Your task to perform on an android device: turn pop-ups off in chrome Image 0: 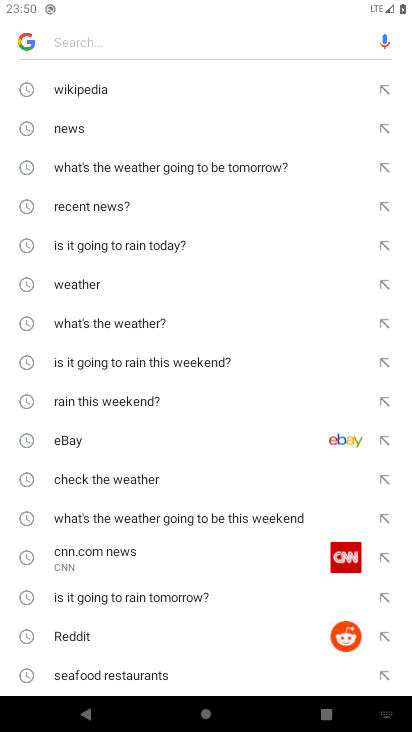
Step 0: press home button
Your task to perform on an android device: turn pop-ups off in chrome Image 1: 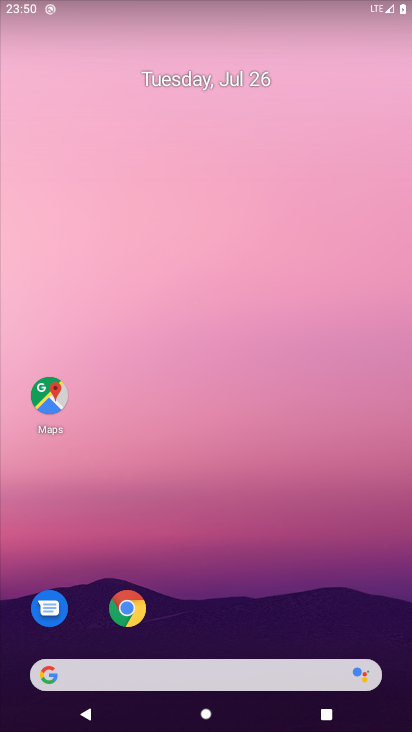
Step 1: click (135, 608)
Your task to perform on an android device: turn pop-ups off in chrome Image 2: 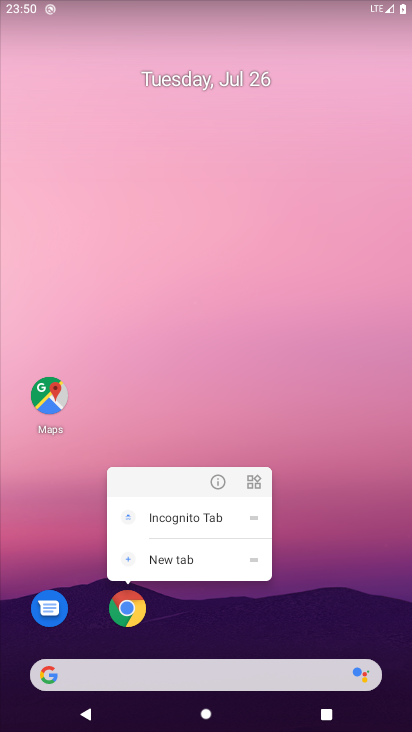
Step 2: click (124, 609)
Your task to perform on an android device: turn pop-ups off in chrome Image 3: 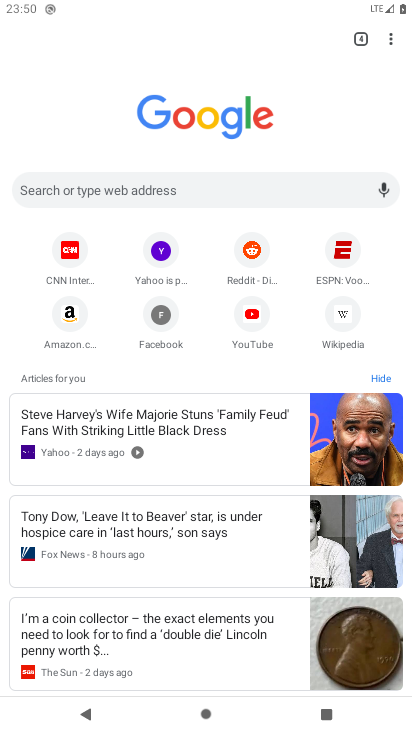
Step 3: drag from (383, 36) to (244, 320)
Your task to perform on an android device: turn pop-ups off in chrome Image 4: 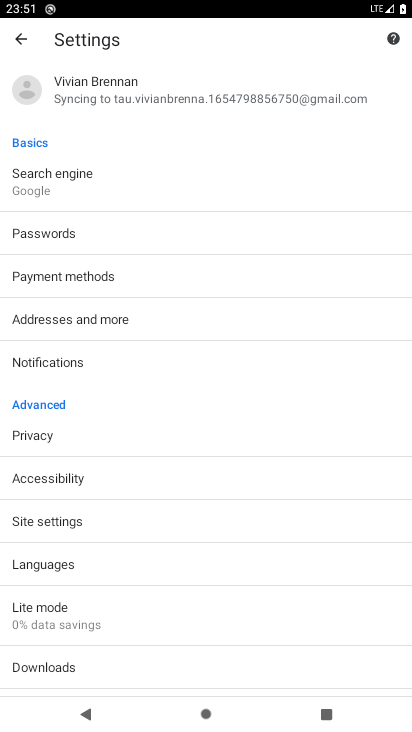
Step 4: click (52, 513)
Your task to perform on an android device: turn pop-ups off in chrome Image 5: 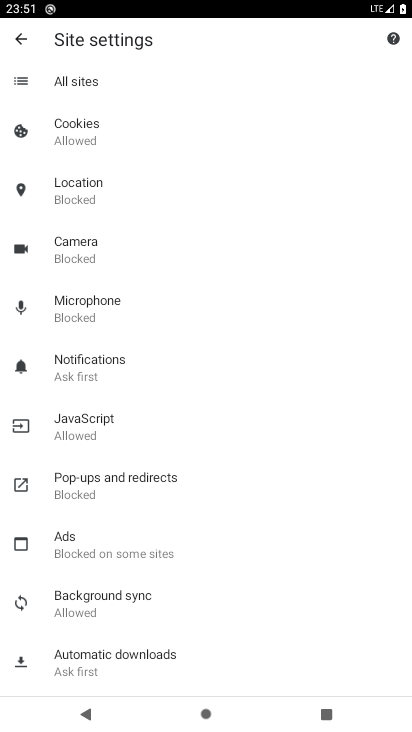
Step 5: click (120, 473)
Your task to perform on an android device: turn pop-ups off in chrome Image 6: 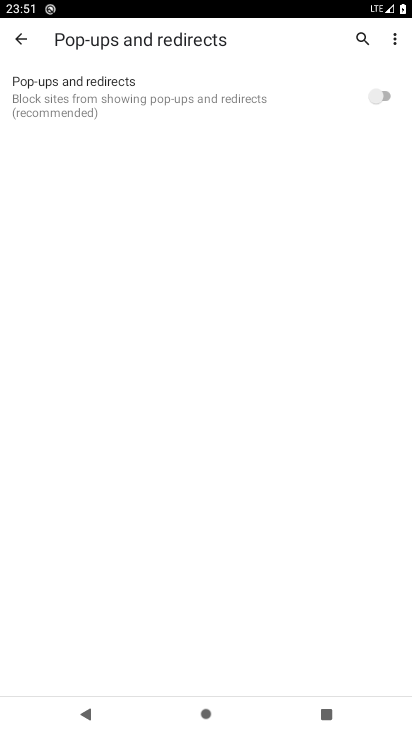
Step 6: task complete